Your task to perform on an android device: Open notification settings Image 0: 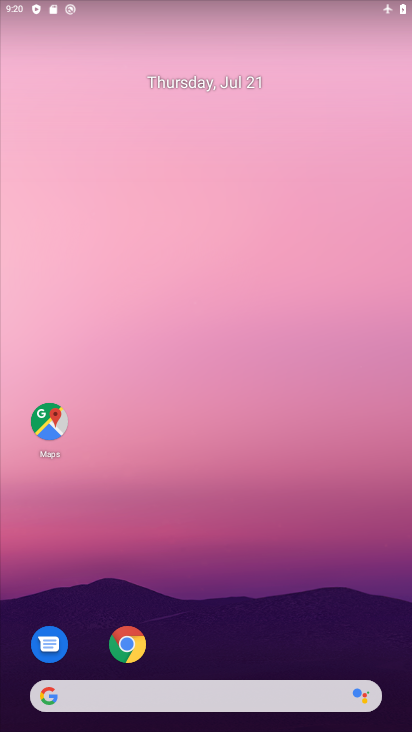
Step 0: drag from (222, 647) to (252, 145)
Your task to perform on an android device: Open notification settings Image 1: 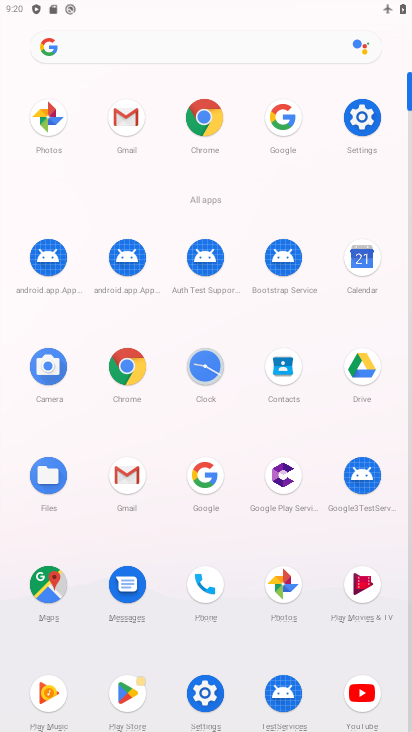
Step 1: click (355, 123)
Your task to perform on an android device: Open notification settings Image 2: 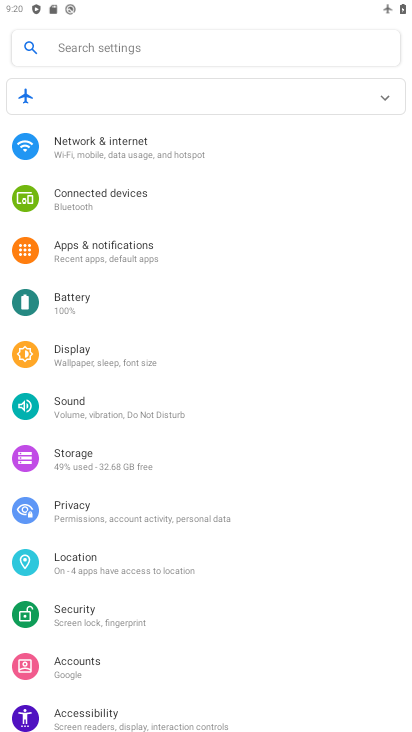
Step 2: click (94, 241)
Your task to perform on an android device: Open notification settings Image 3: 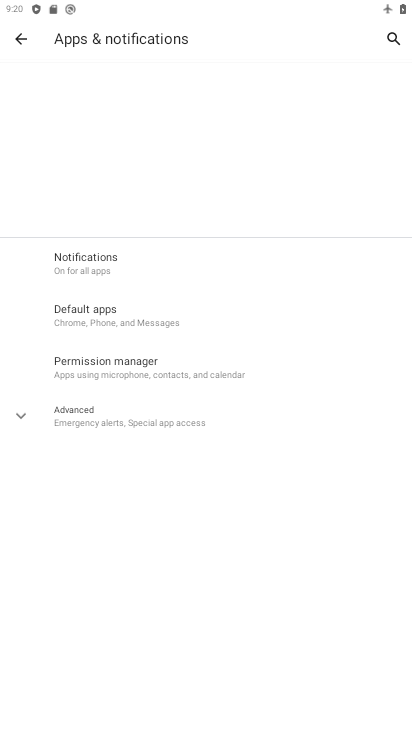
Step 3: click (117, 252)
Your task to perform on an android device: Open notification settings Image 4: 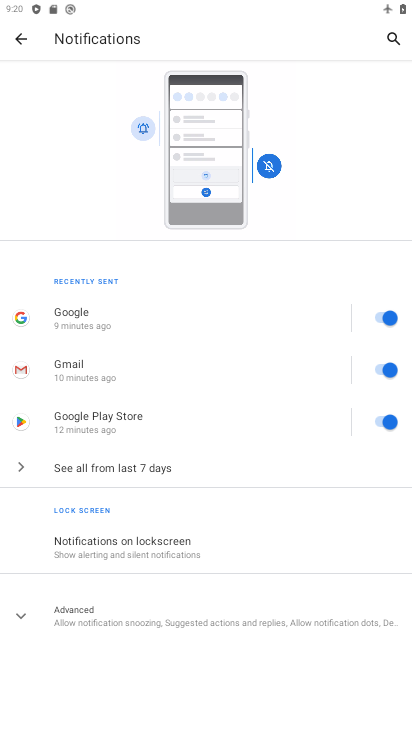
Step 4: task complete